Your task to perform on an android device: Go to Maps Image 0: 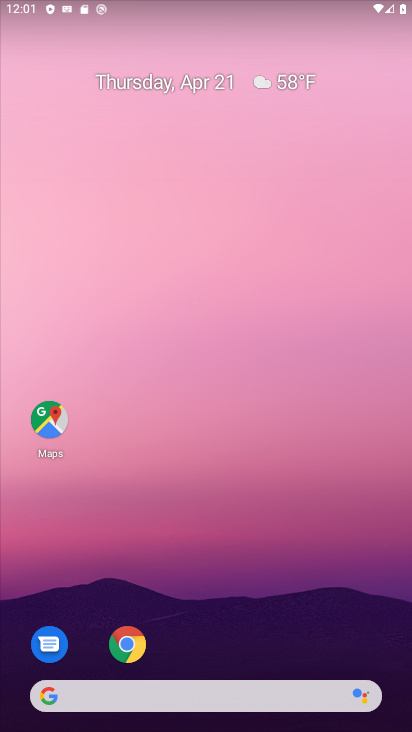
Step 0: click (41, 427)
Your task to perform on an android device: Go to Maps Image 1: 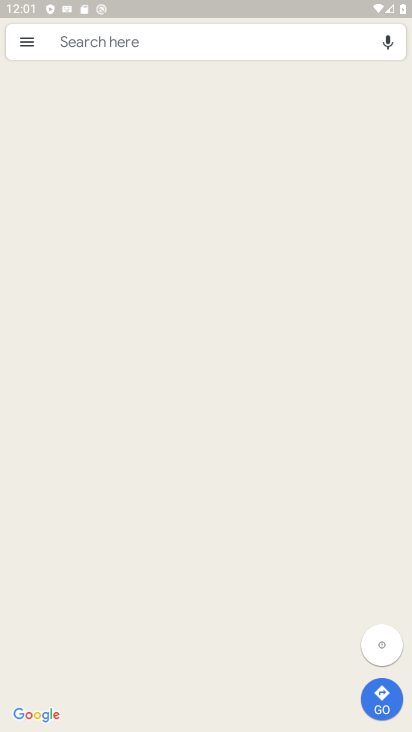
Step 1: task complete